Your task to perform on an android device: open device folders in google photos Image 0: 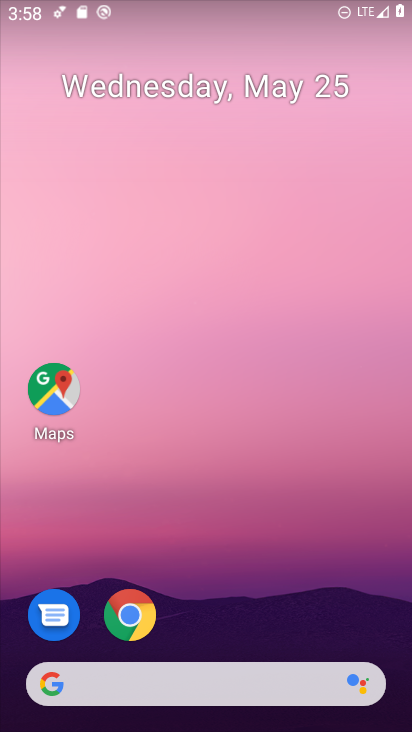
Step 0: drag from (237, 588) to (227, 54)
Your task to perform on an android device: open device folders in google photos Image 1: 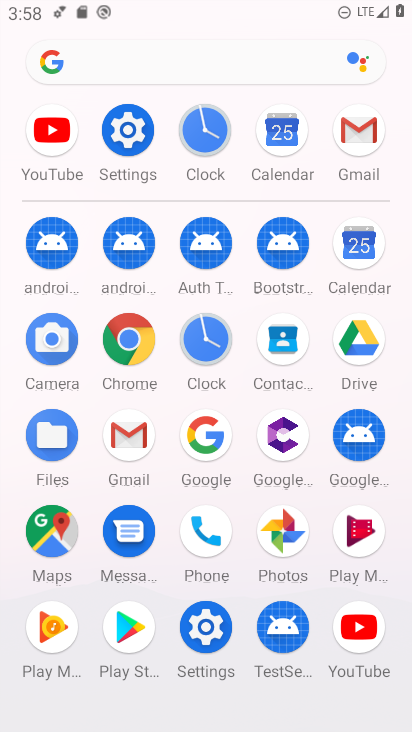
Step 1: click (277, 523)
Your task to perform on an android device: open device folders in google photos Image 2: 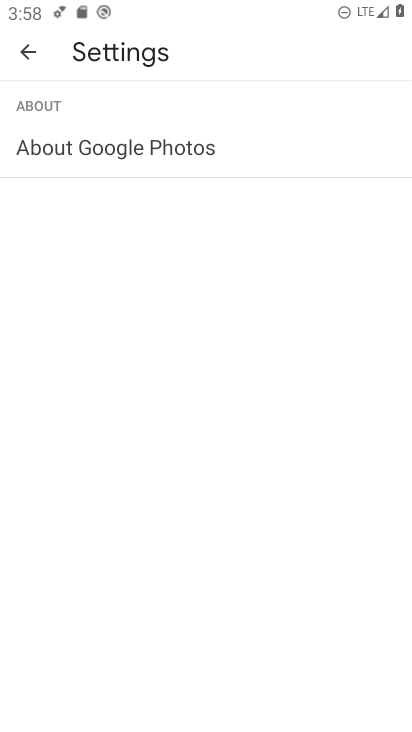
Step 2: click (25, 46)
Your task to perform on an android device: open device folders in google photos Image 3: 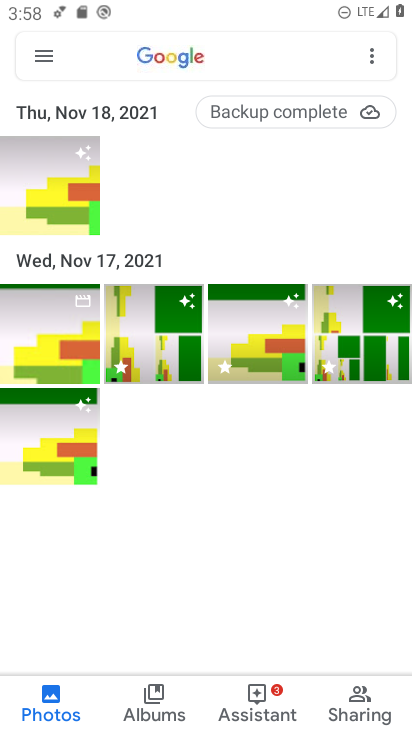
Step 3: click (38, 53)
Your task to perform on an android device: open device folders in google photos Image 4: 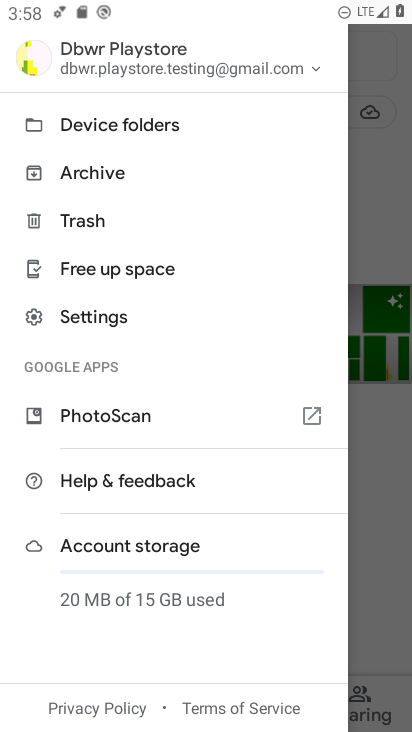
Step 4: click (90, 125)
Your task to perform on an android device: open device folders in google photos Image 5: 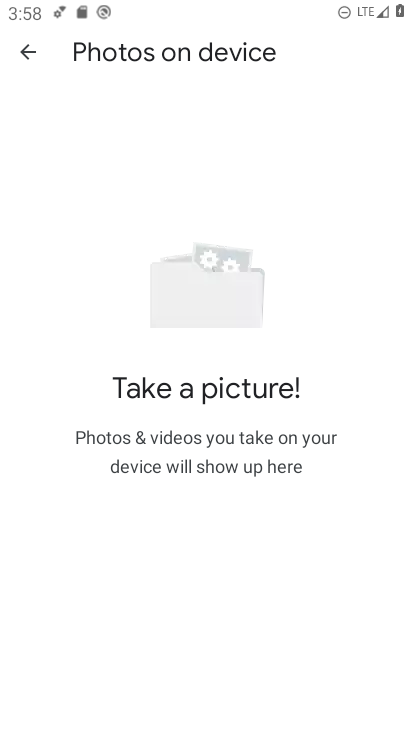
Step 5: task complete